Your task to perform on an android device: Open sound settings Image 0: 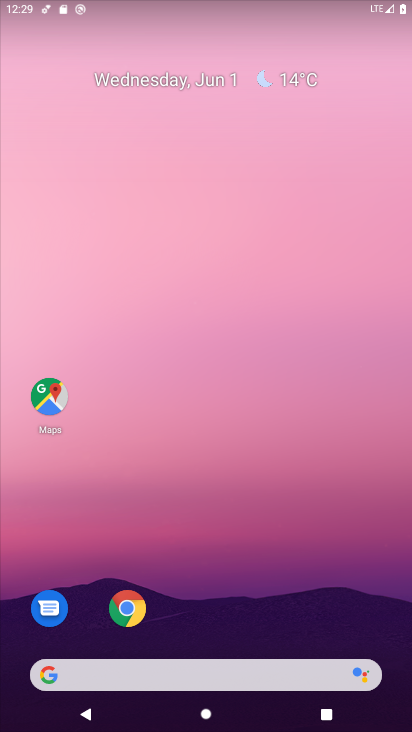
Step 0: drag from (217, 617) to (232, 93)
Your task to perform on an android device: Open sound settings Image 1: 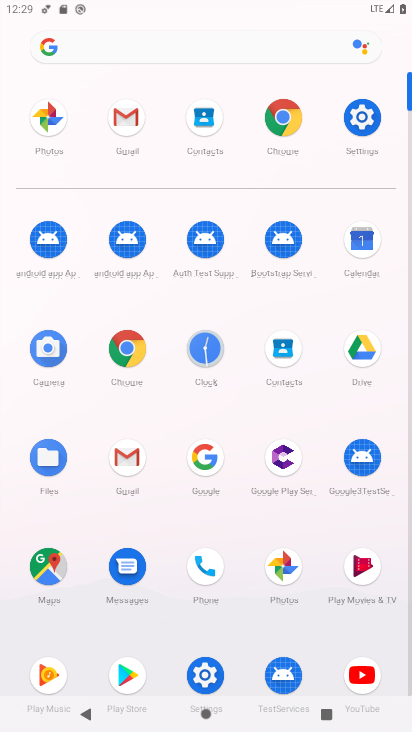
Step 1: click (208, 666)
Your task to perform on an android device: Open sound settings Image 2: 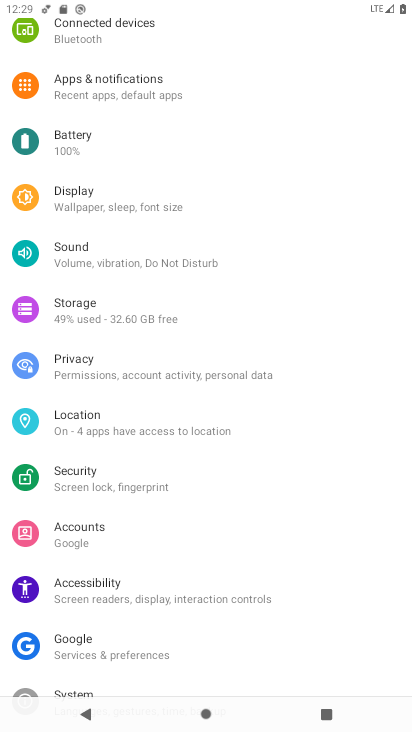
Step 2: click (116, 253)
Your task to perform on an android device: Open sound settings Image 3: 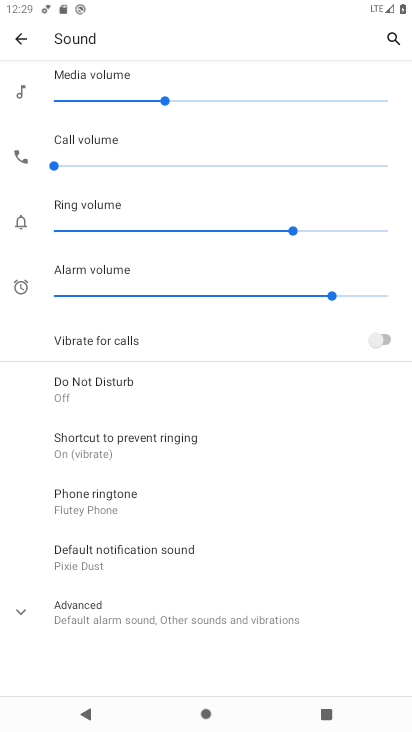
Step 3: task complete